Your task to perform on an android device: turn off priority inbox in the gmail app Image 0: 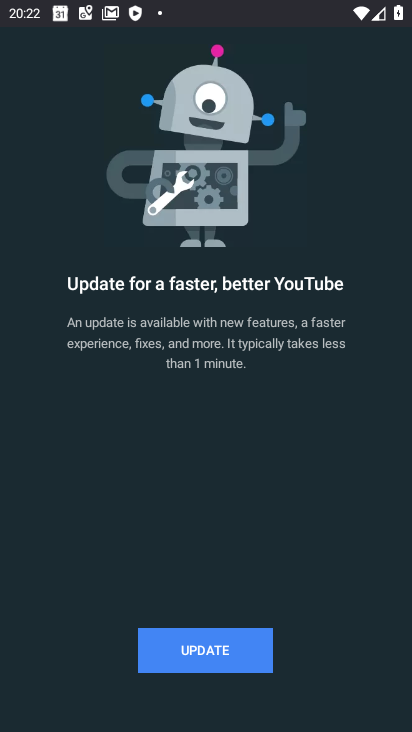
Step 0: press home button
Your task to perform on an android device: turn off priority inbox in the gmail app Image 1: 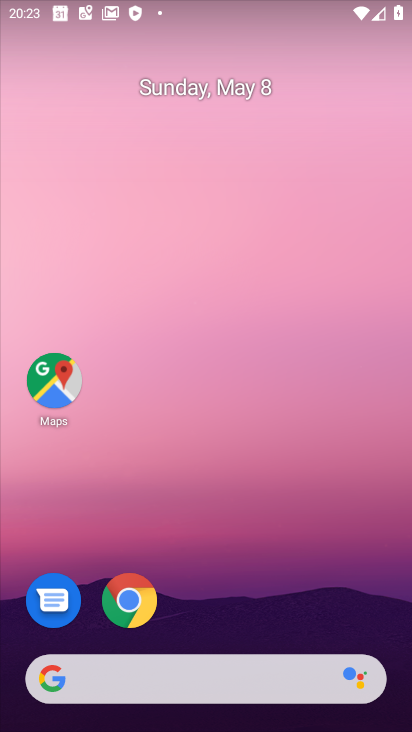
Step 1: drag from (273, 698) to (300, 325)
Your task to perform on an android device: turn off priority inbox in the gmail app Image 2: 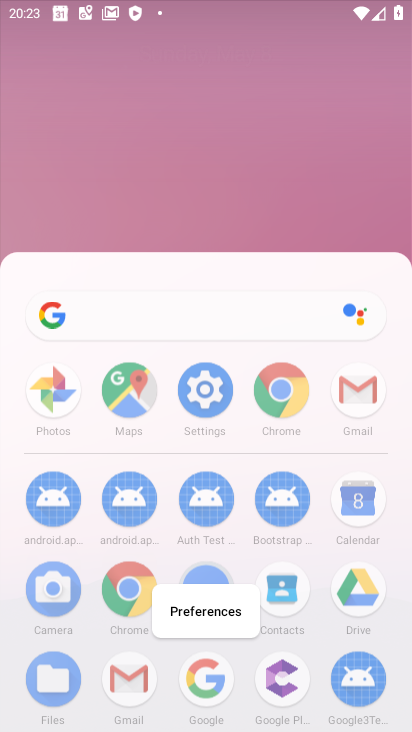
Step 2: click (304, 365)
Your task to perform on an android device: turn off priority inbox in the gmail app Image 3: 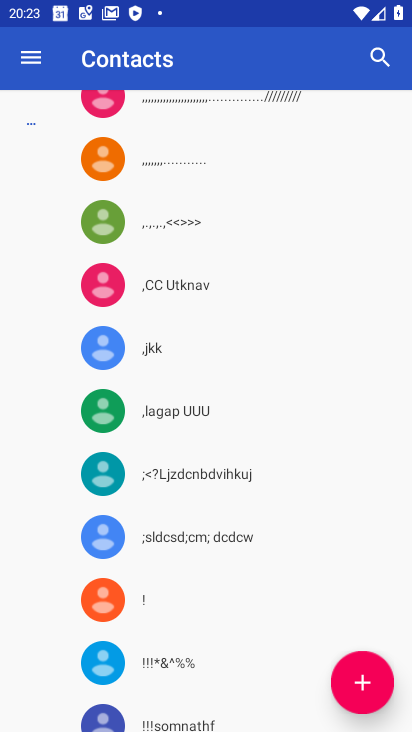
Step 3: press home button
Your task to perform on an android device: turn off priority inbox in the gmail app Image 4: 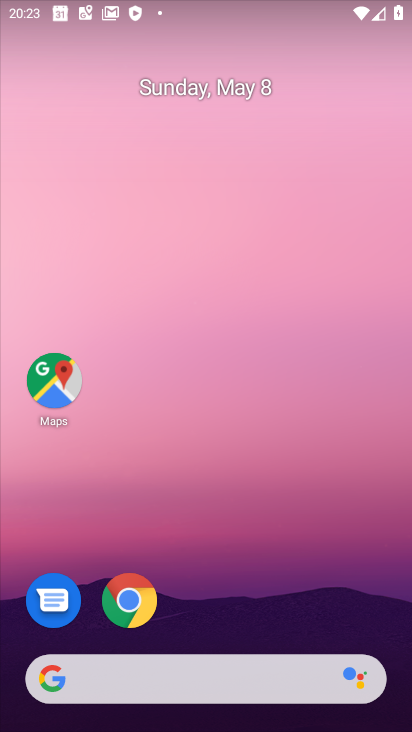
Step 4: drag from (303, 709) to (232, 330)
Your task to perform on an android device: turn off priority inbox in the gmail app Image 5: 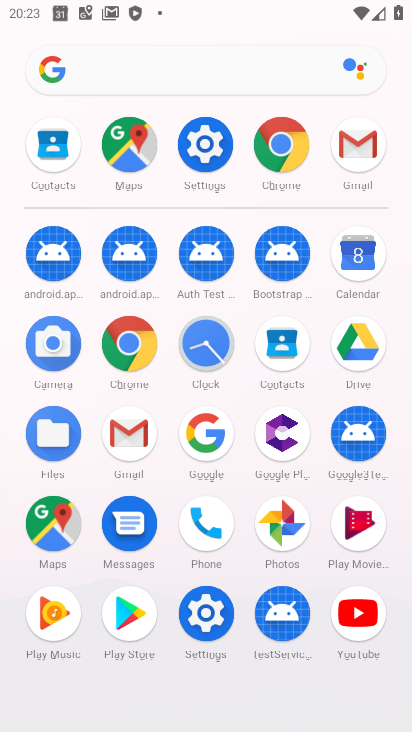
Step 5: click (131, 441)
Your task to perform on an android device: turn off priority inbox in the gmail app Image 6: 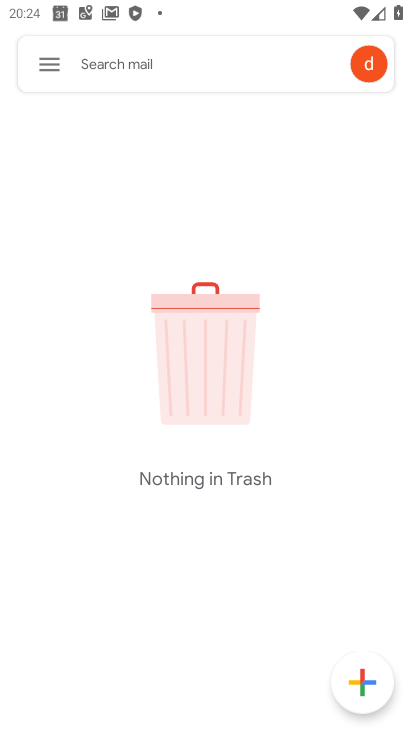
Step 6: click (58, 57)
Your task to perform on an android device: turn off priority inbox in the gmail app Image 7: 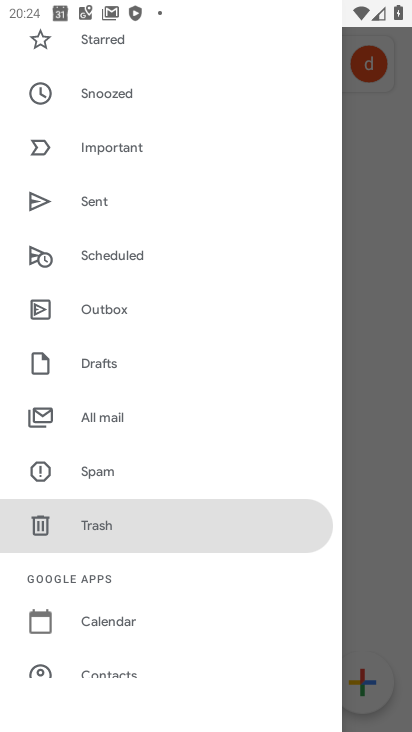
Step 7: drag from (137, 596) to (207, 457)
Your task to perform on an android device: turn off priority inbox in the gmail app Image 8: 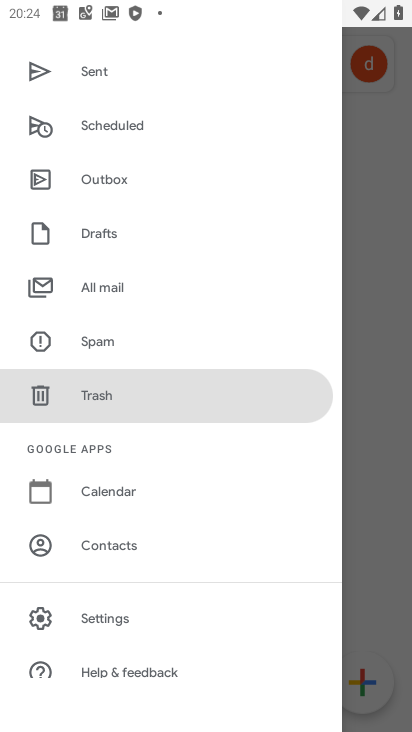
Step 8: click (111, 625)
Your task to perform on an android device: turn off priority inbox in the gmail app Image 9: 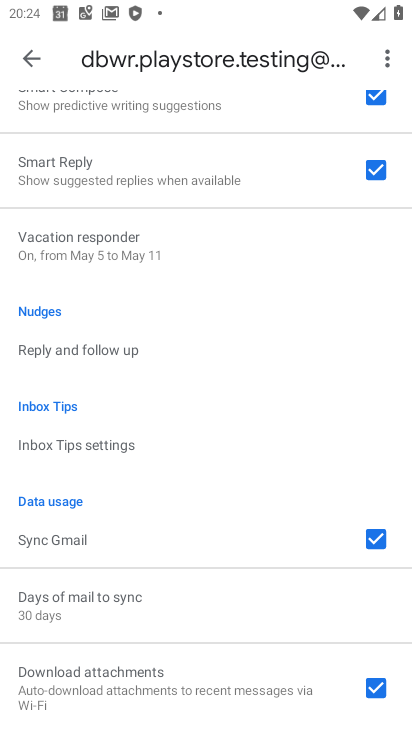
Step 9: drag from (154, 261) to (174, 621)
Your task to perform on an android device: turn off priority inbox in the gmail app Image 10: 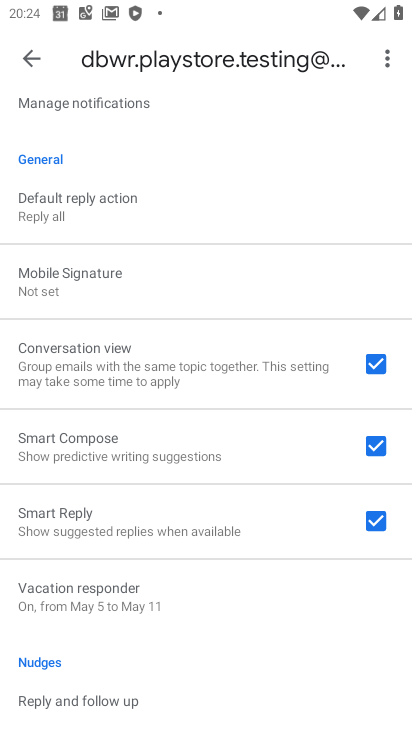
Step 10: drag from (142, 202) to (205, 546)
Your task to perform on an android device: turn off priority inbox in the gmail app Image 11: 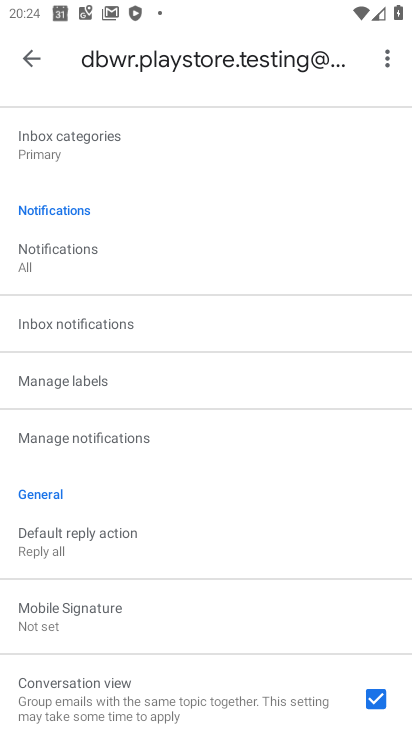
Step 11: drag from (117, 166) to (143, 360)
Your task to perform on an android device: turn off priority inbox in the gmail app Image 12: 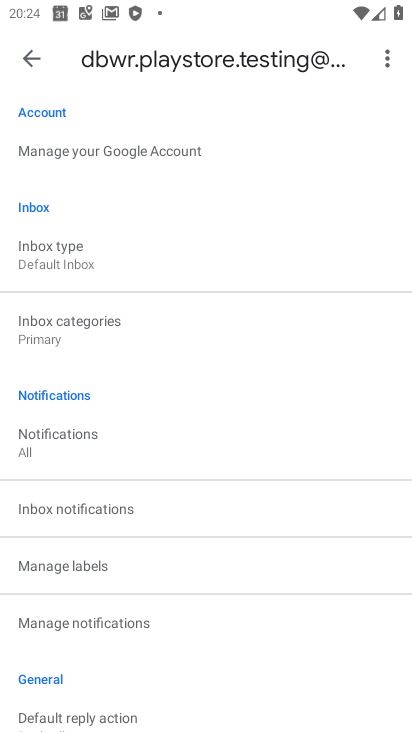
Step 12: drag from (113, 252) to (134, 491)
Your task to perform on an android device: turn off priority inbox in the gmail app Image 13: 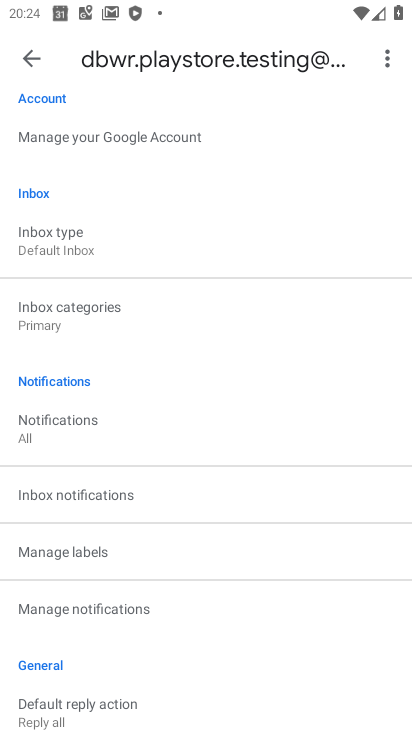
Step 13: click (100, 263)
Your task to perform on an android device: turn off priority inbox in the gmail app Image 14: 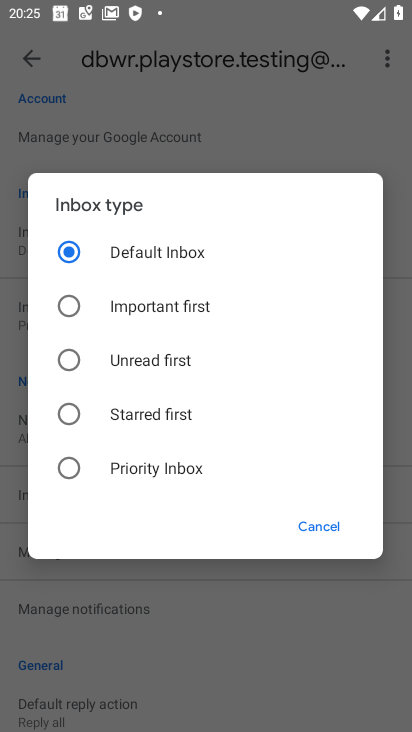
Step 14: task complete